Your task to perform on an android device: Go to accessibility settings Image 0: 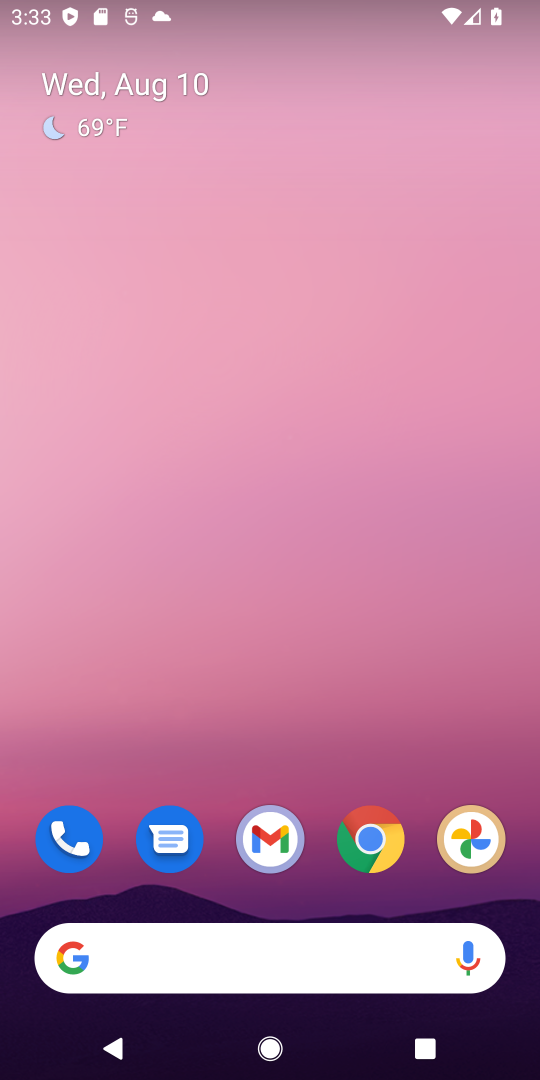
Step 0: drag from (286, 764) to (340, 18)
Your task to perform on an android device: Go to accessibility settings Image 1: 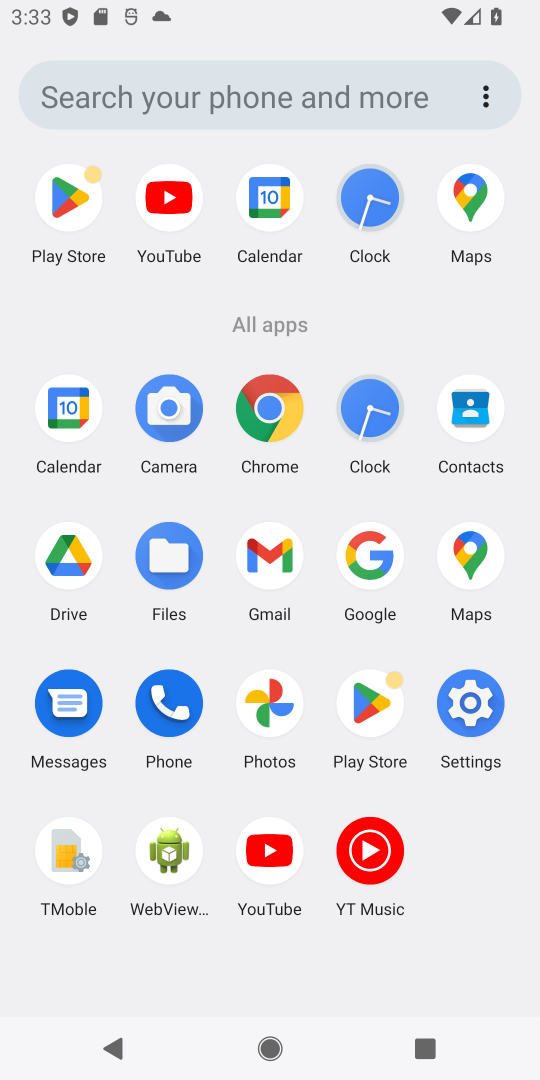
Step 1: click (467, 697)
Your task to perform on an android device: Go to accessibility settings Image 2: 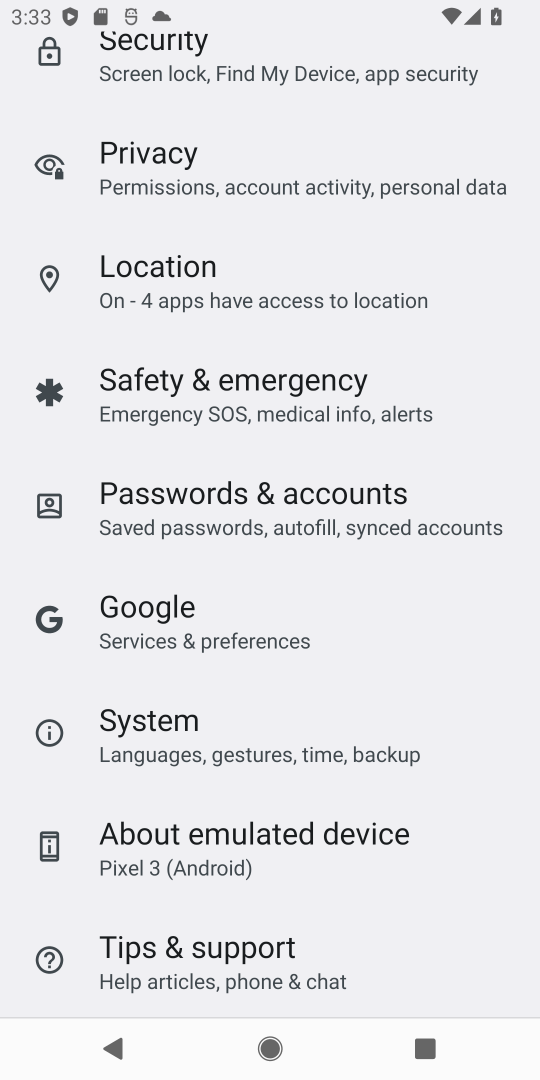
Step 2: drag from (327, 306) to (317, 850)
Your task to perform on an android device: Go to accessibility settings Image 3: 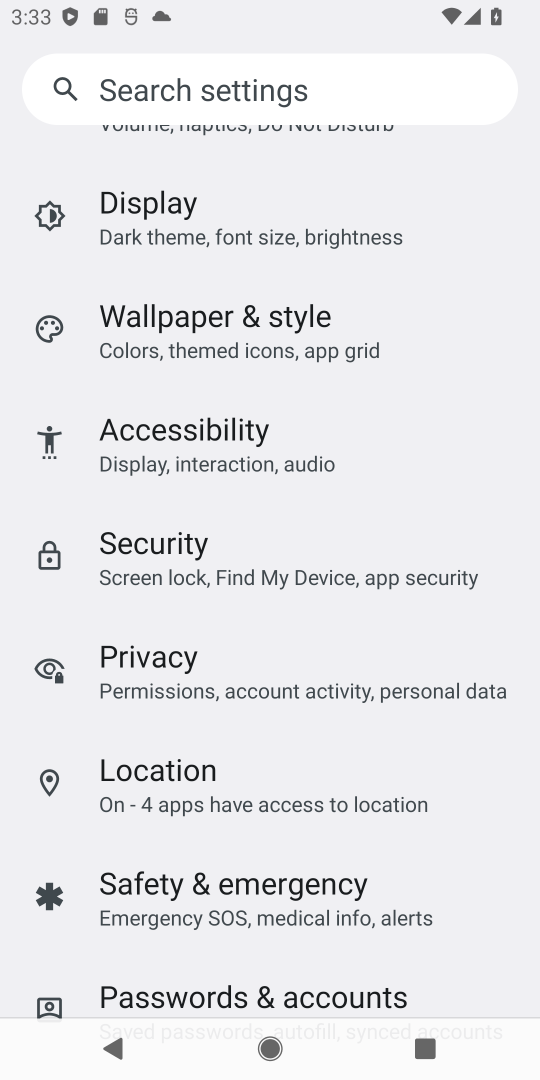
Step 3: click (292, 450)
Your task to perform on an android device: Go to accessibility settings Image 4: 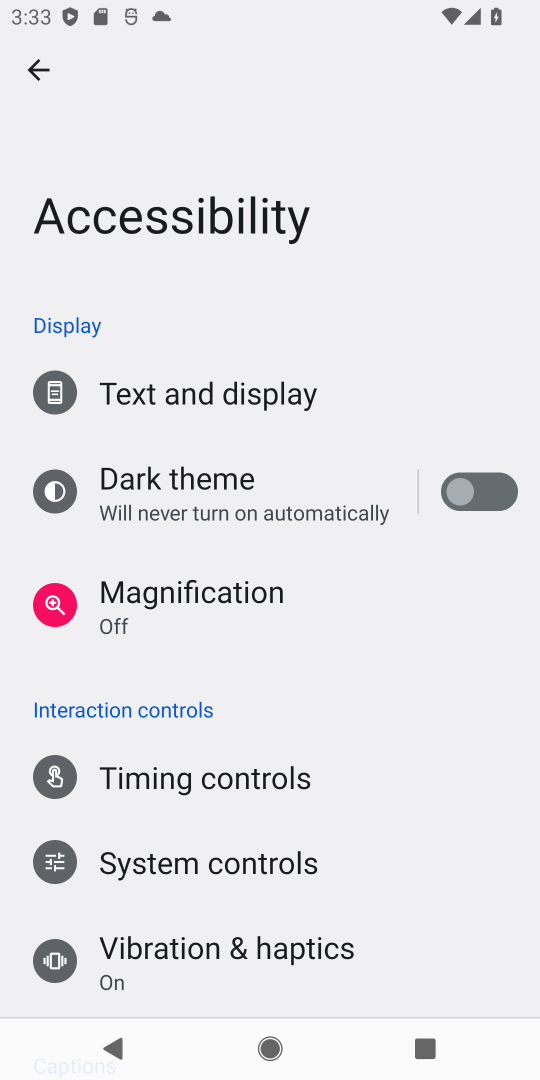
Step 4: task complete